Your task to perform on an android device: make emails show in primary in the gmail app Image 0: 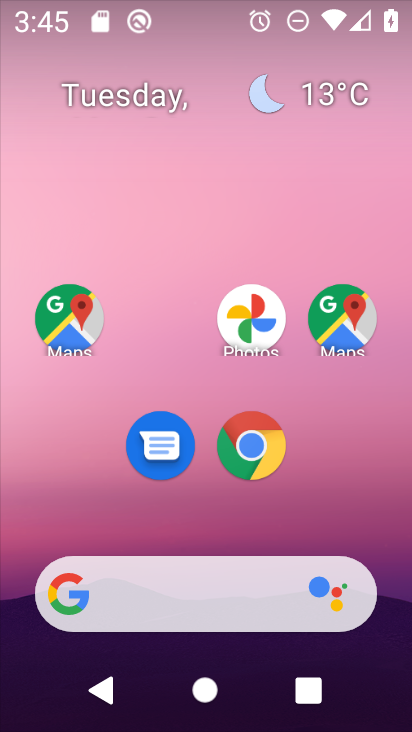
Step 0: drag from (396, 547) to (403, 206)
Your task to perform on an android device: make emails show in primary in the gmail app Image 1: 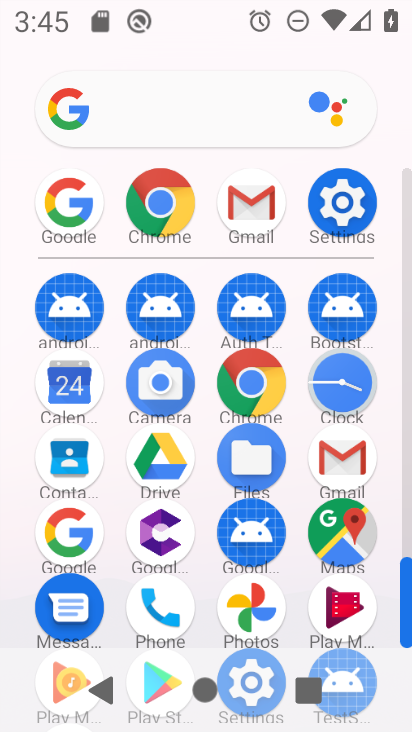
Step 1: click (348, 472)
Your task to perform on an android device: make emails show in primary in the gmail app Image 2: 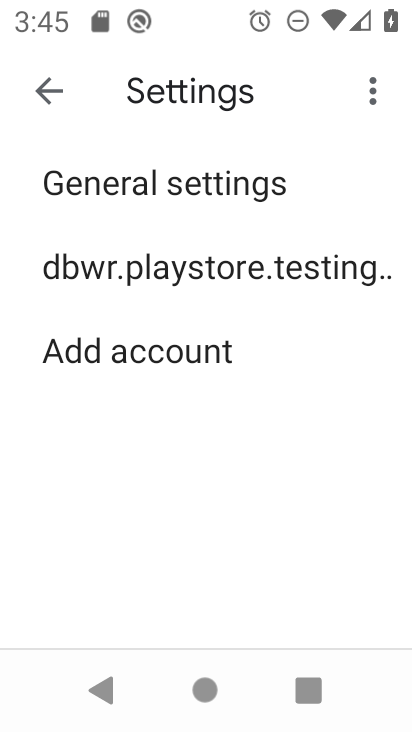
Step 2: click (348, 274)
Your task to perform on an android device: make emails show in primary in the gmail app Image 3: 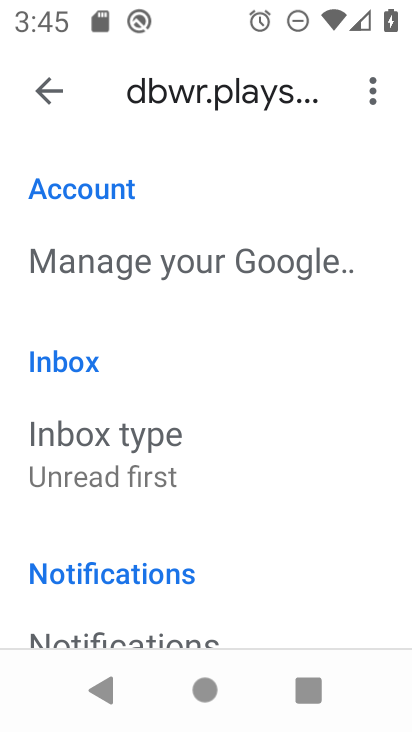
Step 3: drag from (341, 515) to (348, 428)
Your task to perform on an android device: make emails show in primary in the gmail app Image 4: 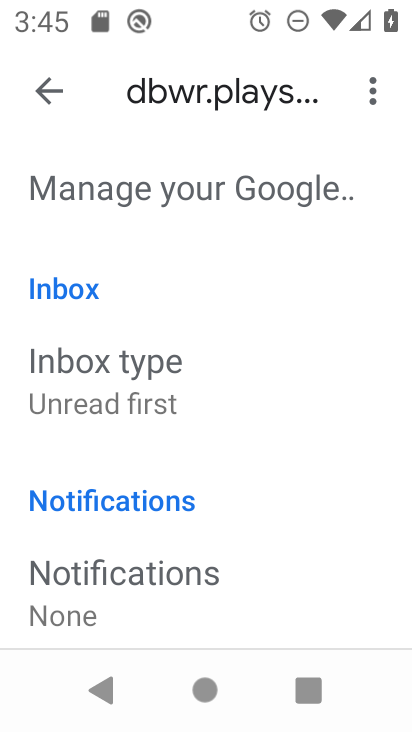
Step 4: drag from (353, 556) to (353, 462)
Your task to perform on an android device: make emails show in primary in the gmail app Image 5: 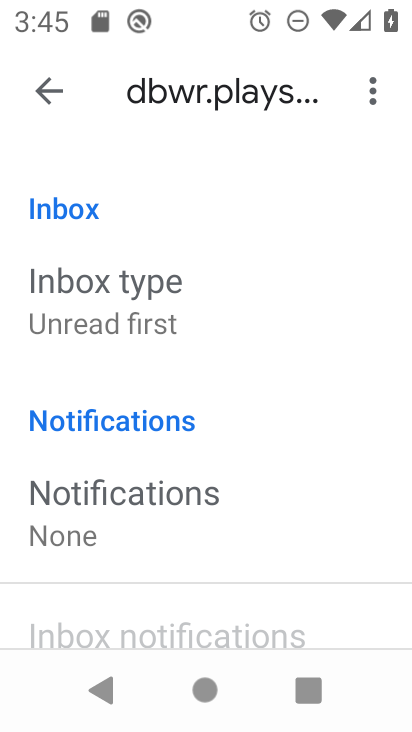
Step 5: drag from (350, 549) to (357, 466)
Your task to perform on an android device: make emails show in primary in the gmail app Image 6: 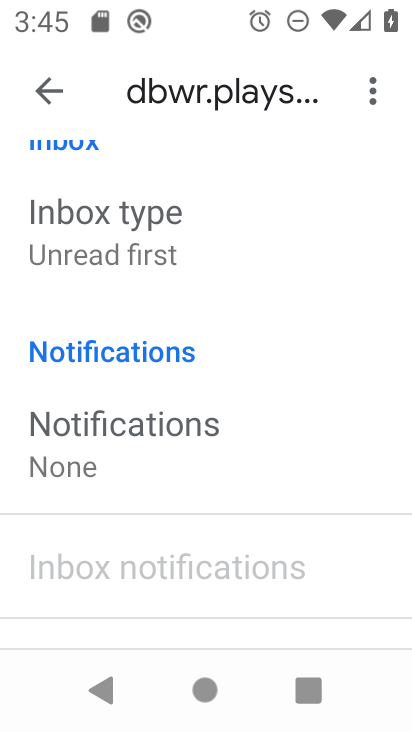
Step 6: drag from (360, 557) to (360, 495)
Your task to perform on an android device: make emails show in primary in the gmail app Image 7: 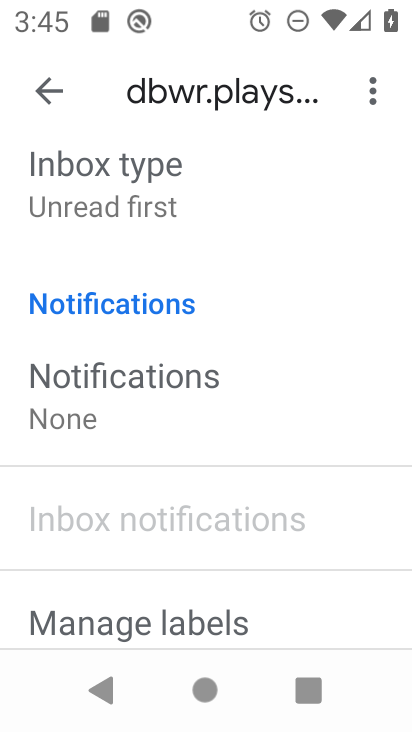
Step 7: drag from (357, 577) to (362, 506)
Your task to perform on an android device: make emails show in primary in the gmail app Image 8: 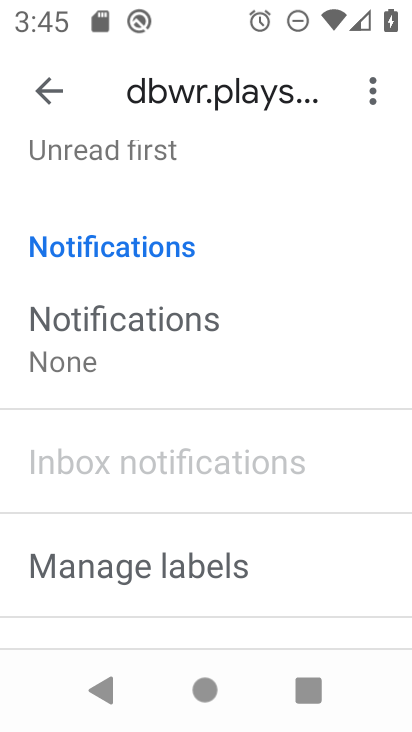
Step 8: drag from (360, 561) to (373, 469)
Your task to perform on an android device: make emails show in primary in the gmail app Image 9: 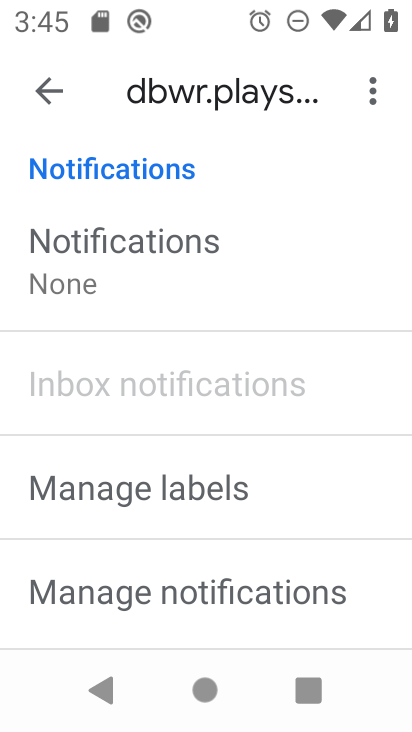
Step 9: drag from (361, 554) to (362, 491)
Your task to perform on an android device: make emails show in primary in the gmail app Image 10: 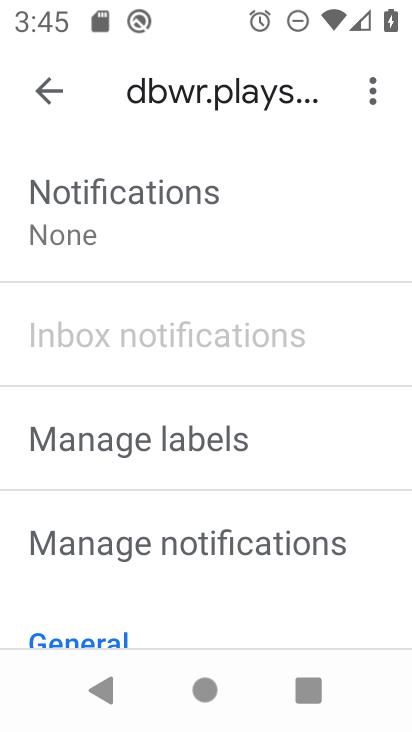
Step 10: drag from (378, 584) to (376, 502)
Your task to perform on an android device: make emails show in primary in the gmail app Image 11: 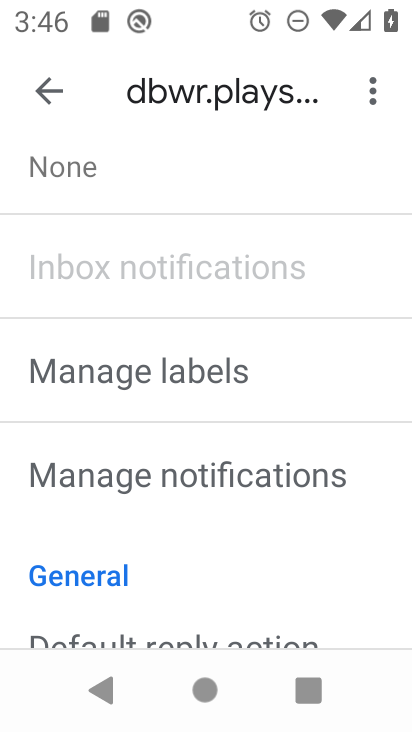
Step 11: drag from (355, 610) to (357, 541)
Your task to perform on an android device: make emails show in primary in the gmail app Image 12: 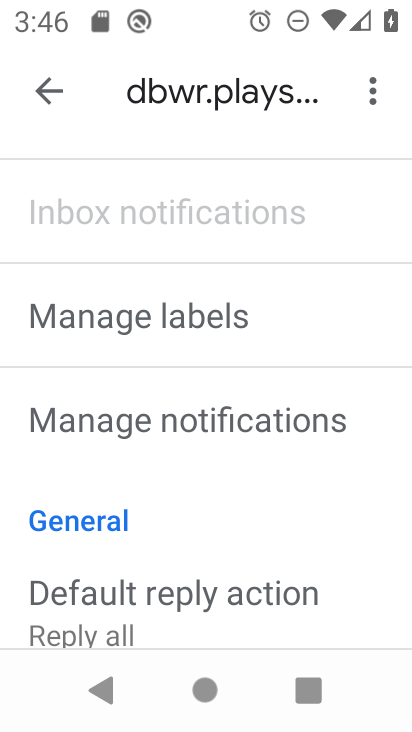
Step 12: drag from (364, 613) to (366, 525)
Your task to perform on an android device: make emails show in primary in the gmail app Image 13: 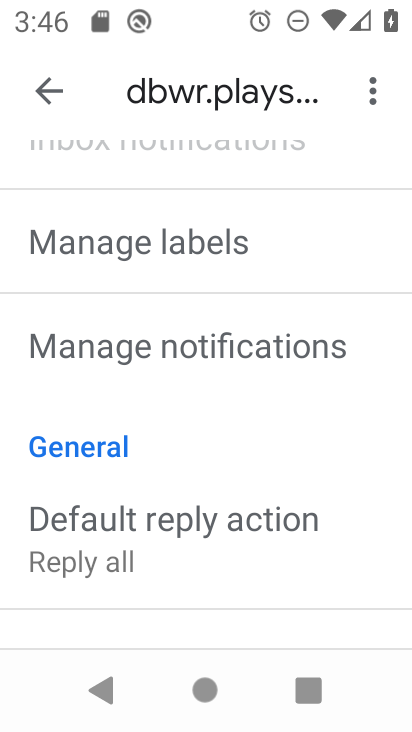
Step 13: drag from (370, 594) to (374, 510)
Your task to perform on an android device: make emails show in primary in the gmail app Image 14: 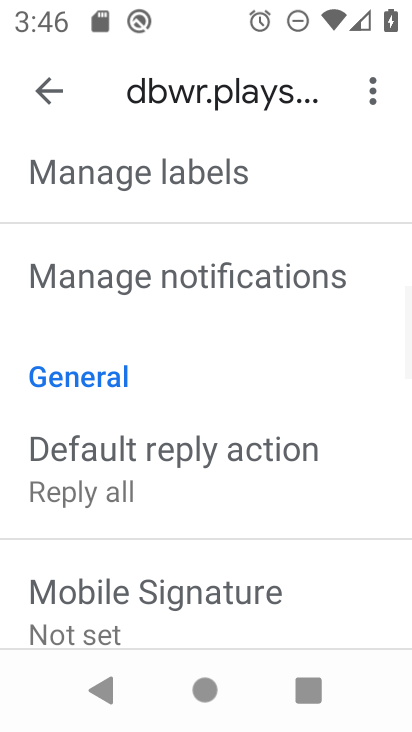
Step 14: drag from (371, 599) to (371, 536)
Your task to perform on an android device: make emails show in primary in the gmail app Image 15: 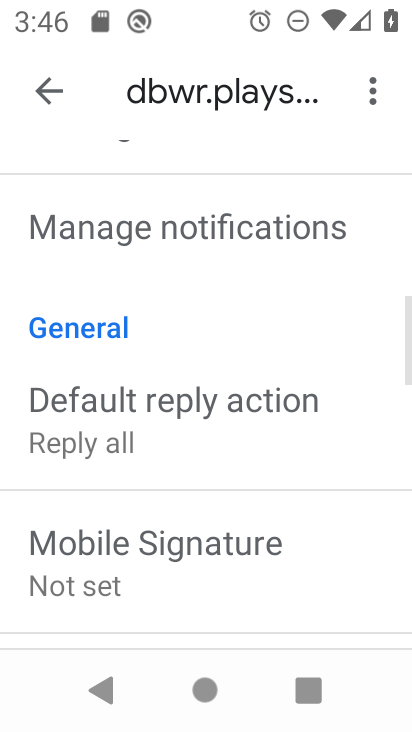
Step 15: drag from (368, 602) to (371, 524)
Your task to perform on an android device: make emails show in primary in the gmail app Image 16: 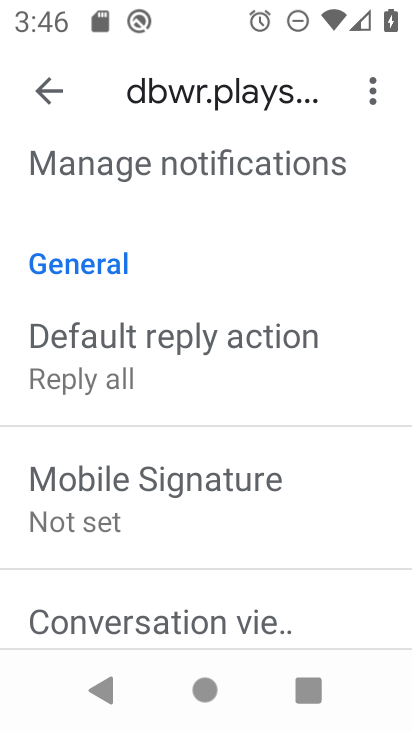
Step 16: drag from (369, 600) to (369, 510)
Your task to perform on an android device: make emails show in primary in the gmail app Image 17: 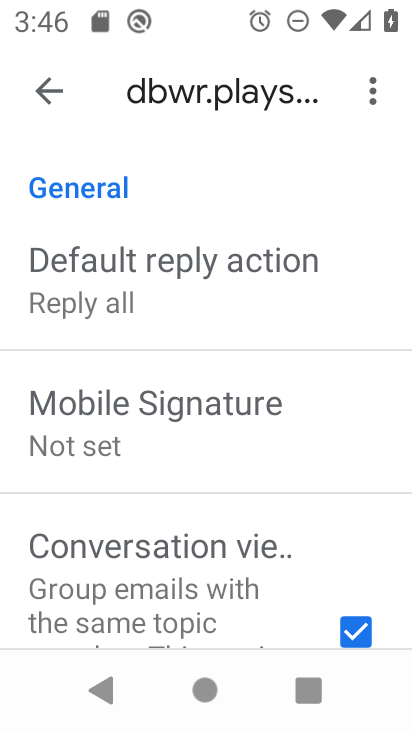
Step 17: drag from (361, 573) to (363, 438)
Your task to perform on an android device: make emails show in primary in the gmail app Image 18: 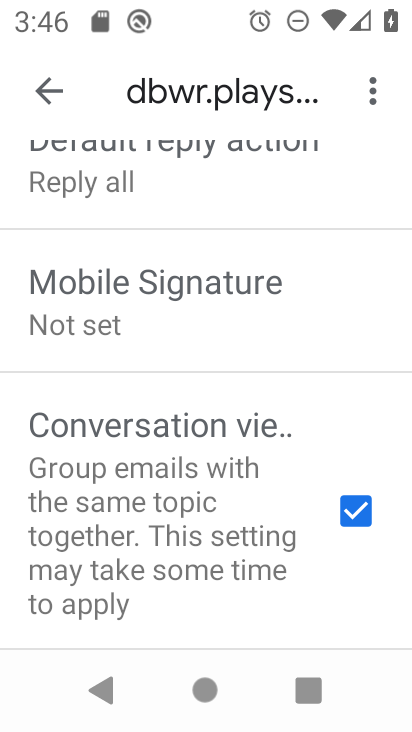
Step 18: drag from (369, 338) to (371, 410)
Your task to perform on an android device: make emails show in primary in the gmail app Image 19: 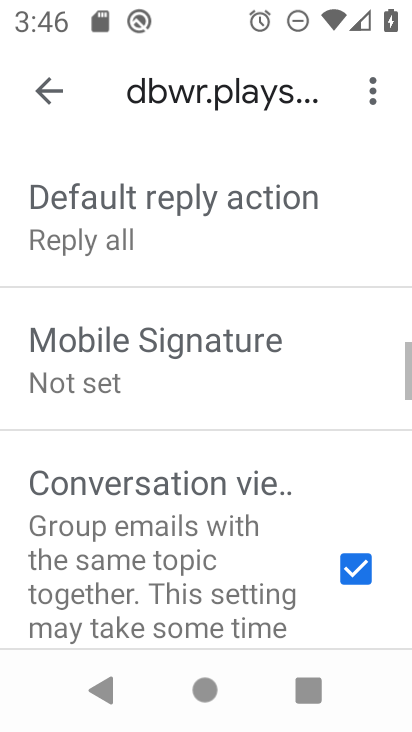
Step 19: drag from (381, 340) to (373, 426)
Your task to perform on an android device: make emails show in primary in the gmail app Image 20: 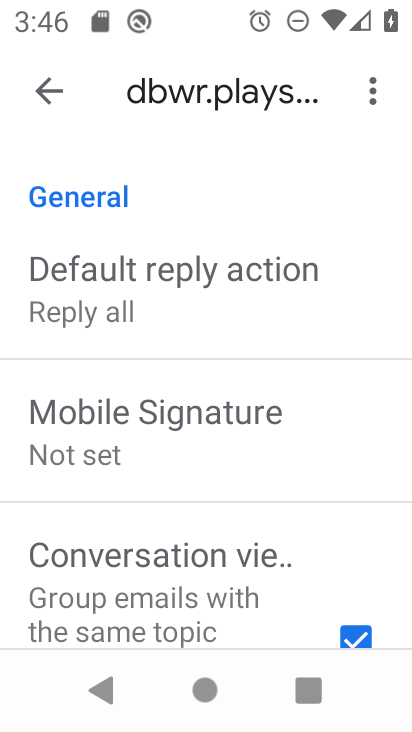
Step 20: drag from (368, 351) to (364, 421)
Your task to perform on an android device: make emails show in primary in the gmail app Image 21: 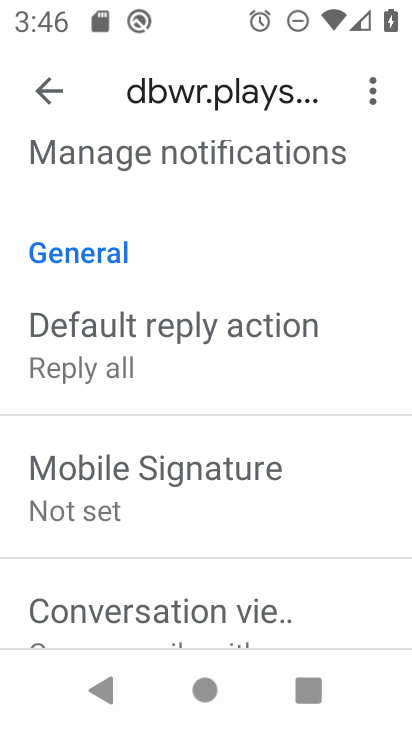
Step 21: drag from (375, 332) to (373, 413)
Your task to perform on an android device: make emails show in primary in the gmail app Image 22: 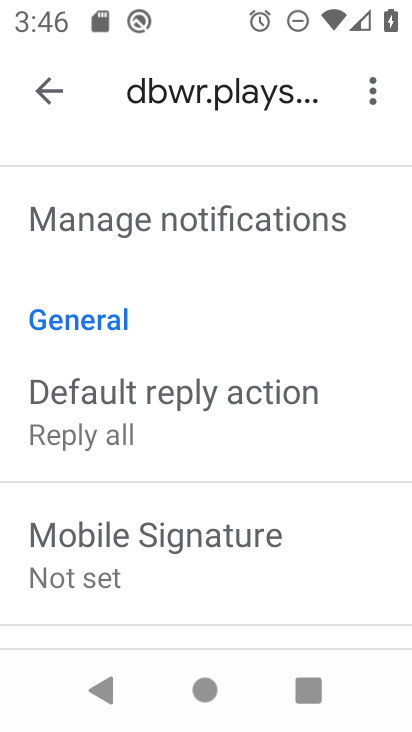
Step 22: drag from (370, 305) to (360, 381)
Your task to perform on an android device: make emails show in primary in the gmail app Image 23: 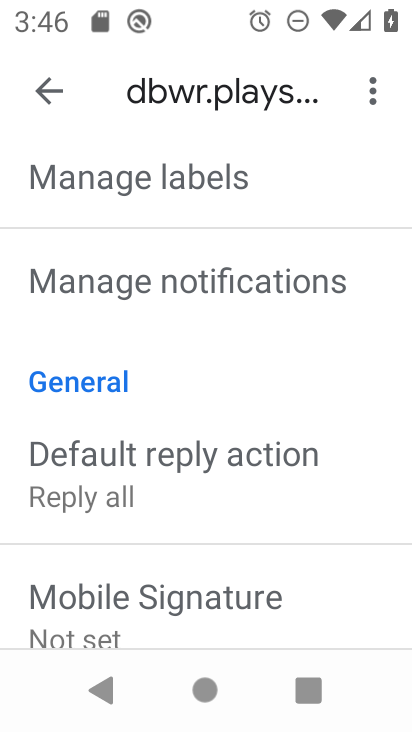
Step 23: drag from (369, 306) to (372, 404)
Your task to perform on an android device: make emails show in primary in the gmail app Image 24: 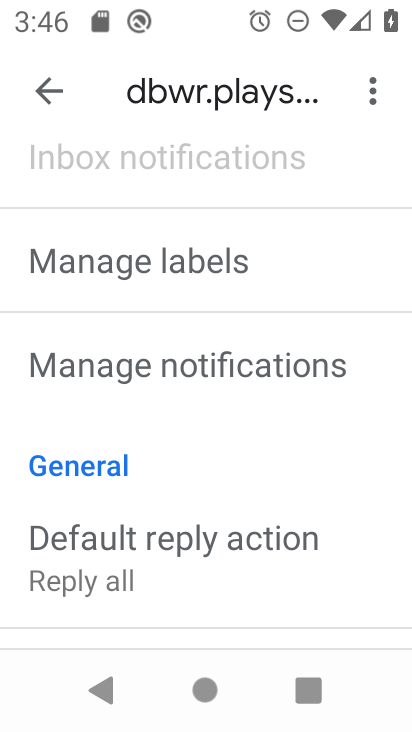
Step 24: drag from (364, 298) to (364, 401)
Your task to perform on an android device: make emails show in primary in the gmail app Image 25: 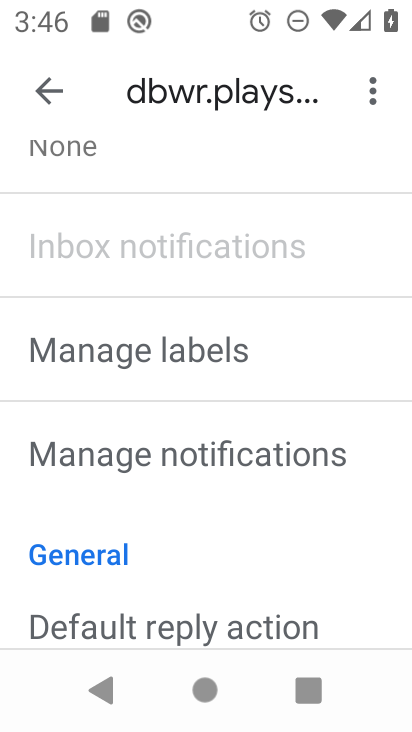
Step 25: drag from (365, 276) to (365, 381)
Your task to perform on an android device: make emails show in primary in the gmail app Image 26: 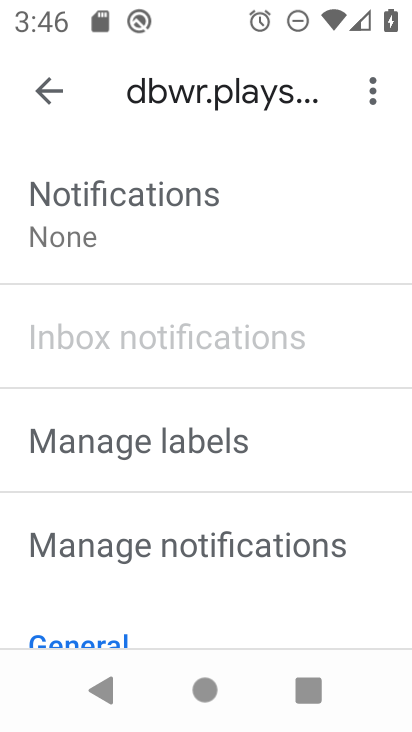
Step 26: drag from (354, 278) to (354, 404)
Your task to perform on an android device: make emails show in primary in the gmail app Image 27: 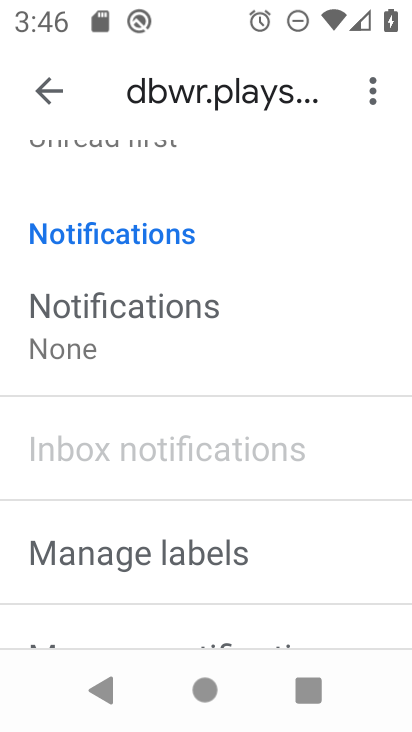
Step 27: drag from (352, 282) to (347, 395)
Your task to perform on an android device: make emails show in primary in the gmail app Image 28: 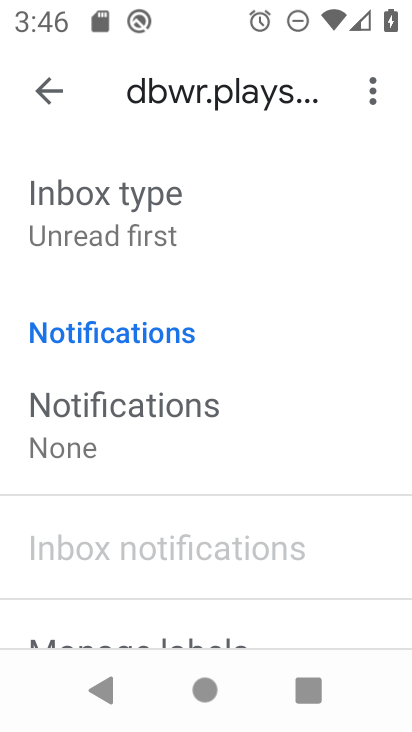
Step 28: click (172, 231)
Your task to perform on an android device: make emails show in primary in the gmail app Image 29: 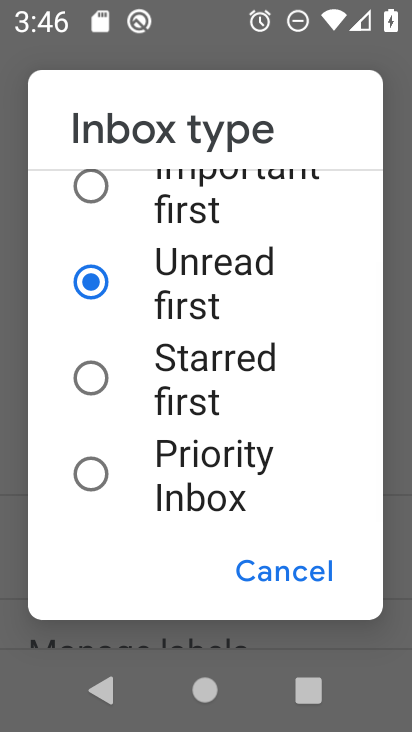
Step 29: drag from (251, 217) to (276, 347)
Your task to perform on an android device: make emails show in primary in the gmail app Image 30: 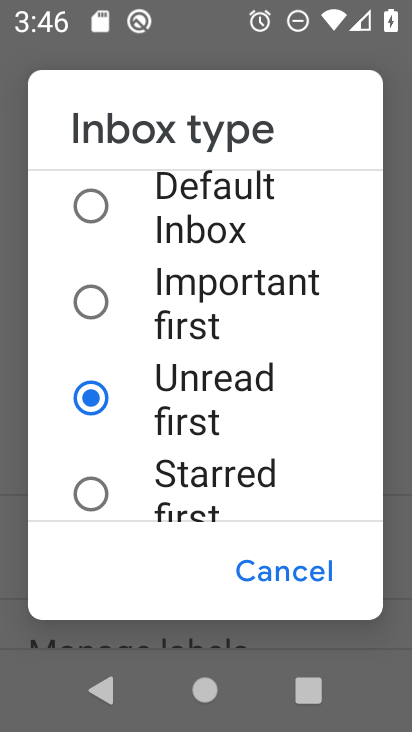
Step 30: click (241, 230)
Your task to perform on an android device: make emails show in primary in the gmail app Image 31: 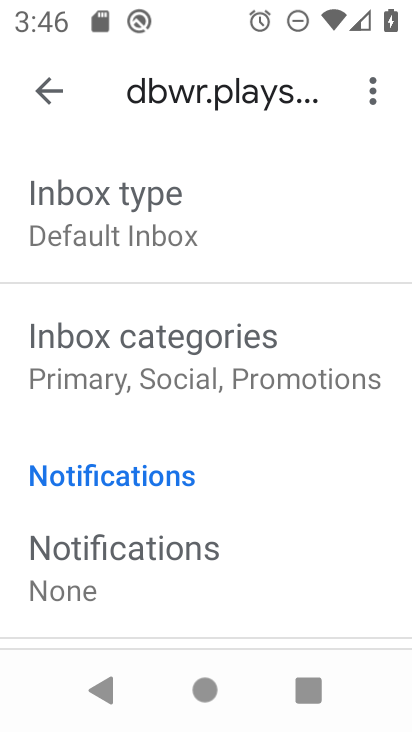
Step 31: click (225, 384)
Your task to perform on an android device: make emails show in primary in the gmail app Image 32: 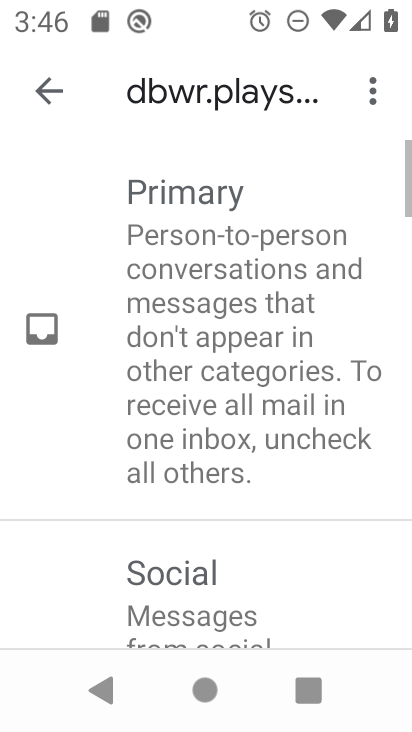
Step 32: drag from (306, 535) to (312, 417)
Your task to perform on an android device: make emails show in primary in the gmail app Image 33: 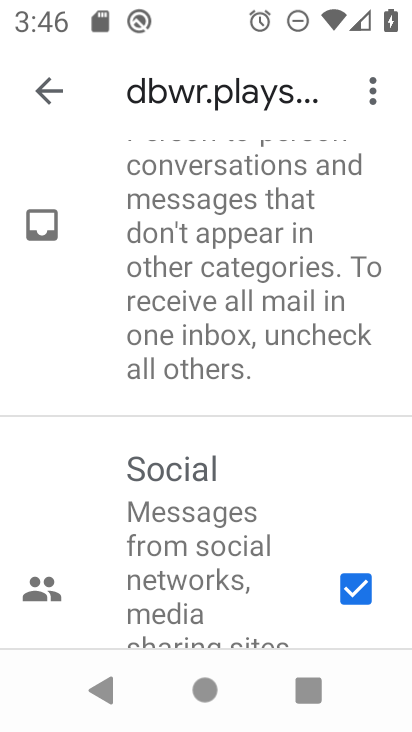
Step 33: drag from (291, 563) to (300, 411)
Your task to perform on an android device: make emails show in primary in the gmail app Image 34: 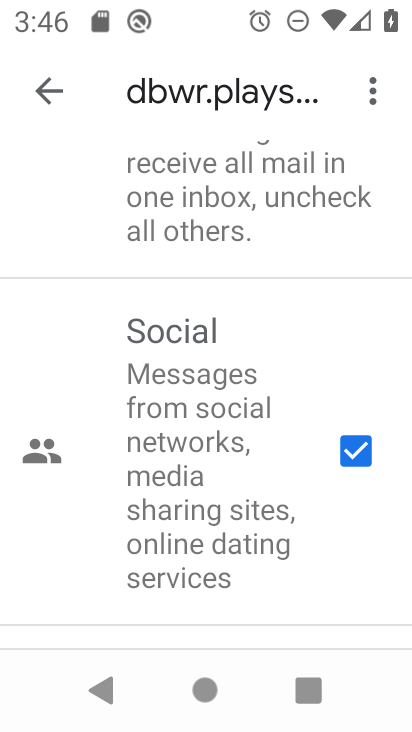
Step 34: click (330, 452)
Your task to perform on an android device: make emails show in primary in the gmail app Image 35: 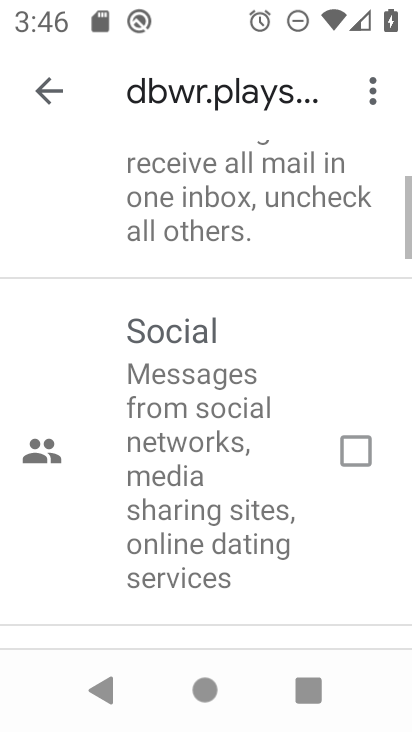
Step 35: drag from (295, 533) to (299, 415)
Your task to perform on an android device: make emails show in primary in the gmail app Image 36: 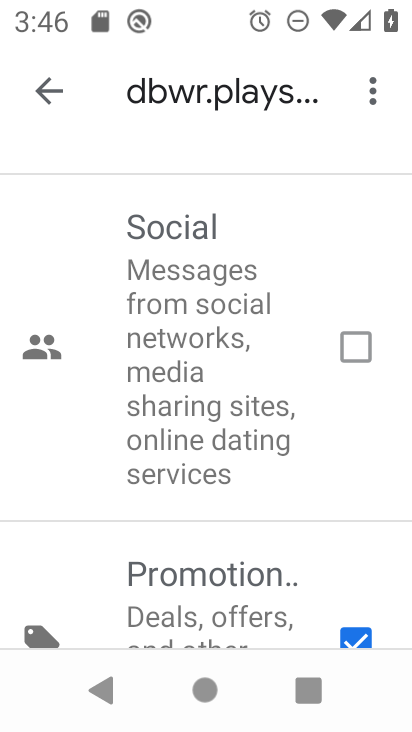
Step 36: drag from (310, 594) to (311, 446)
Your task to perform on an android device: make emails show in primary in the gmail app Image 37: 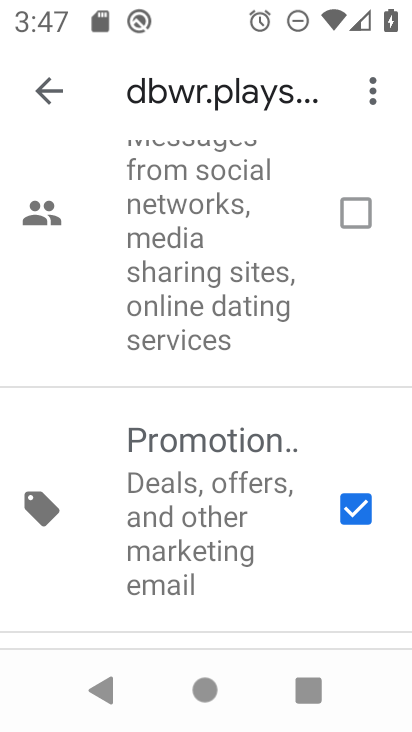
Step 37: click (358, 532)
Your task to perform on an android device: make emails show in primary in the gmail app Image 38: 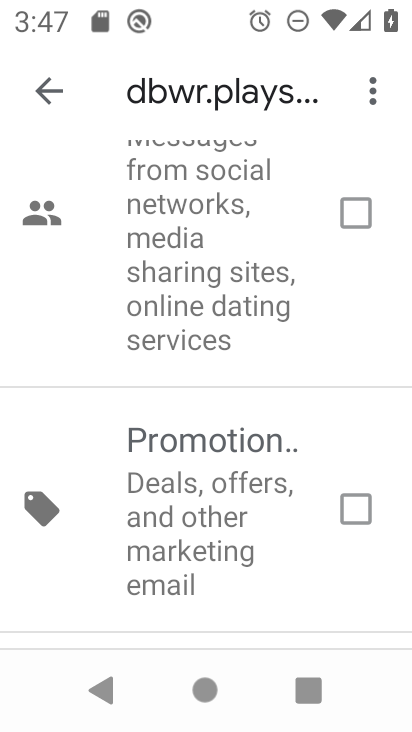
Step 38: task complete